Your task to perform on an android device: find snoozed emails in the gmail app Image 0: 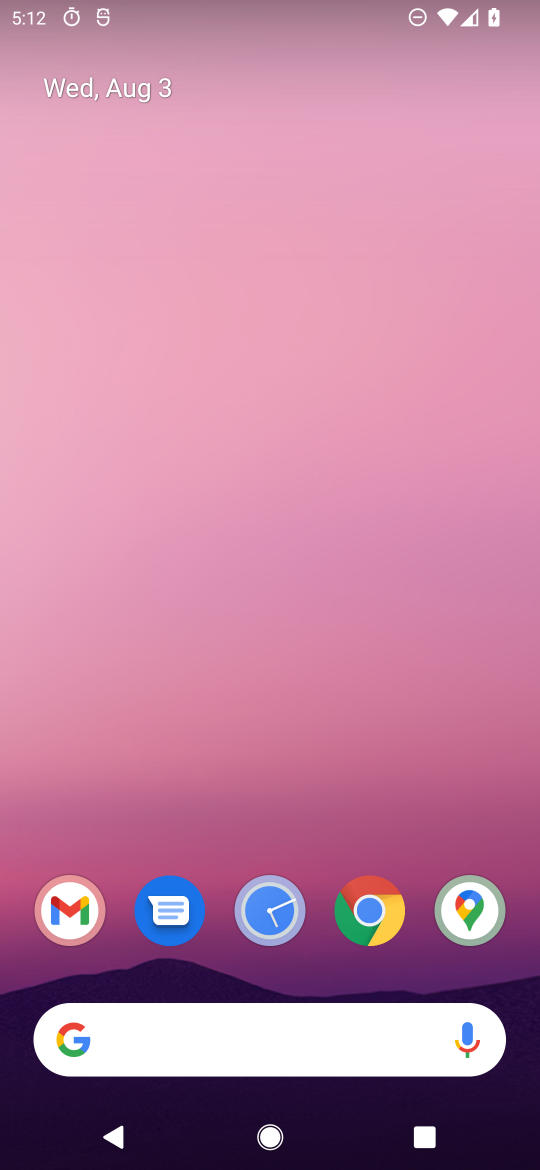
Step 0: click (95, 914)
Your task to perform on an android device: find snoozed emails in the gmail app Image 1: 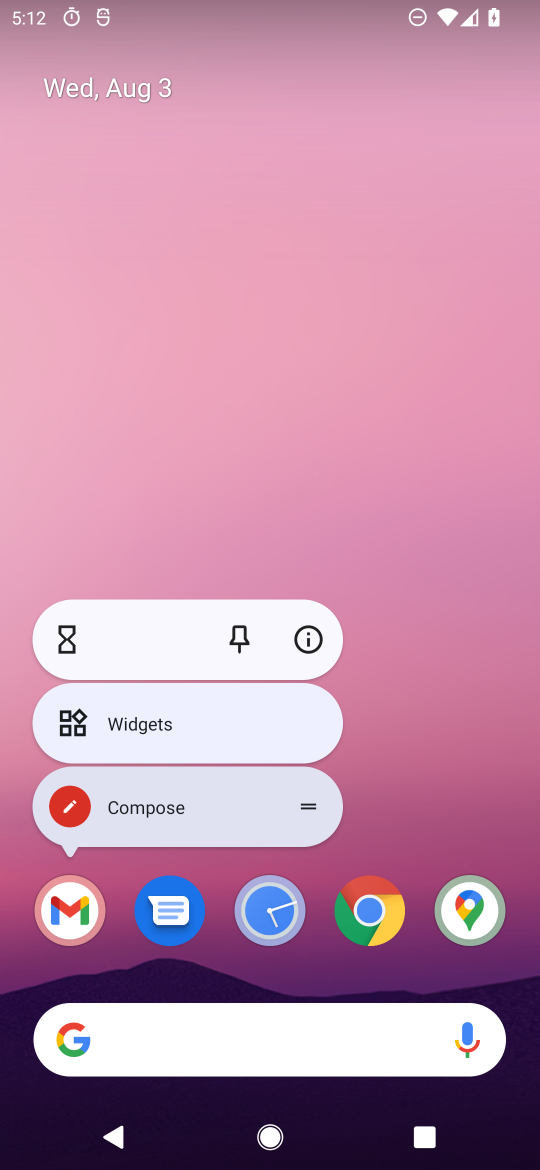
Step 1: click (56, 915)
Your task to perform on an android device: find snoozed emails in the gmail app Image 2: 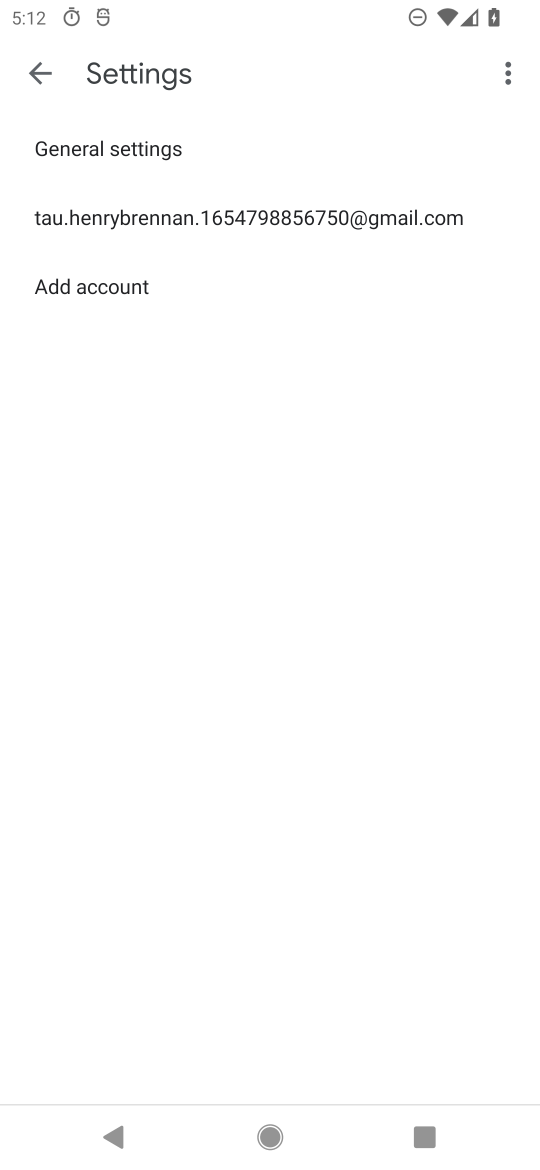
Step 2: click (63, 80)
Your task to perform on an android device: find snoozed emails in the gmail app Image 3: 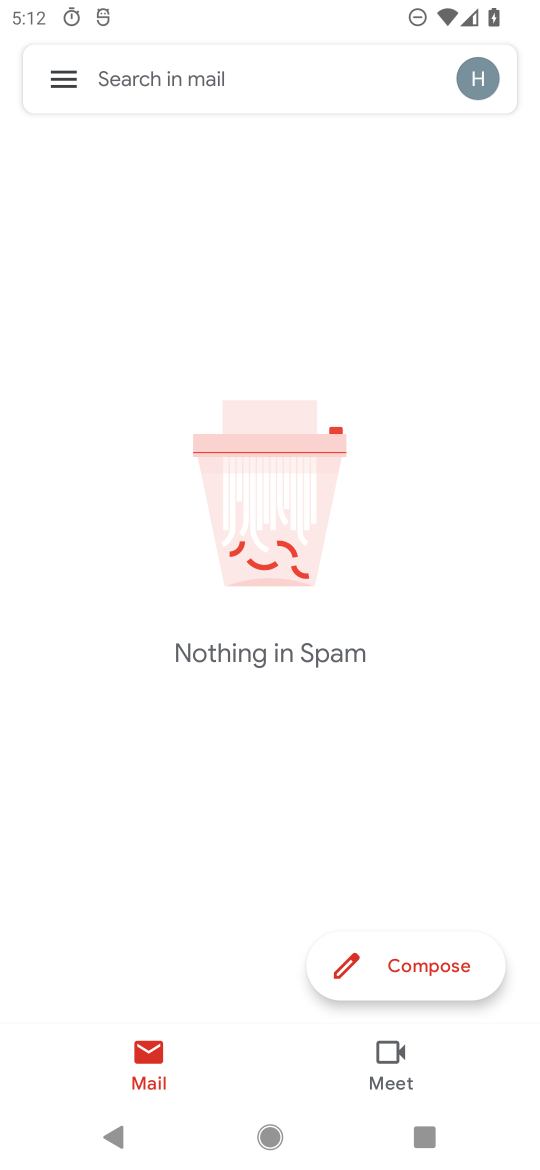
Step 3: click (68, 77)
Your task to perform on an android device: find snoozed emails in the gmail app Image 4: 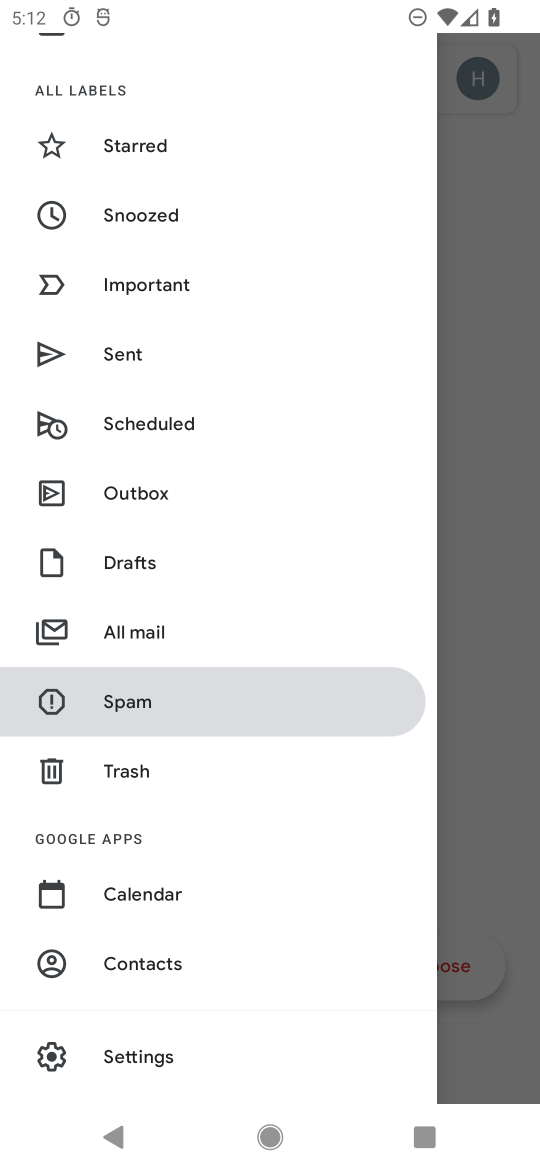
Step 4: click (124, 220)
Your task to perform on an android device: find snoozed emails in the gmail app Image 5: 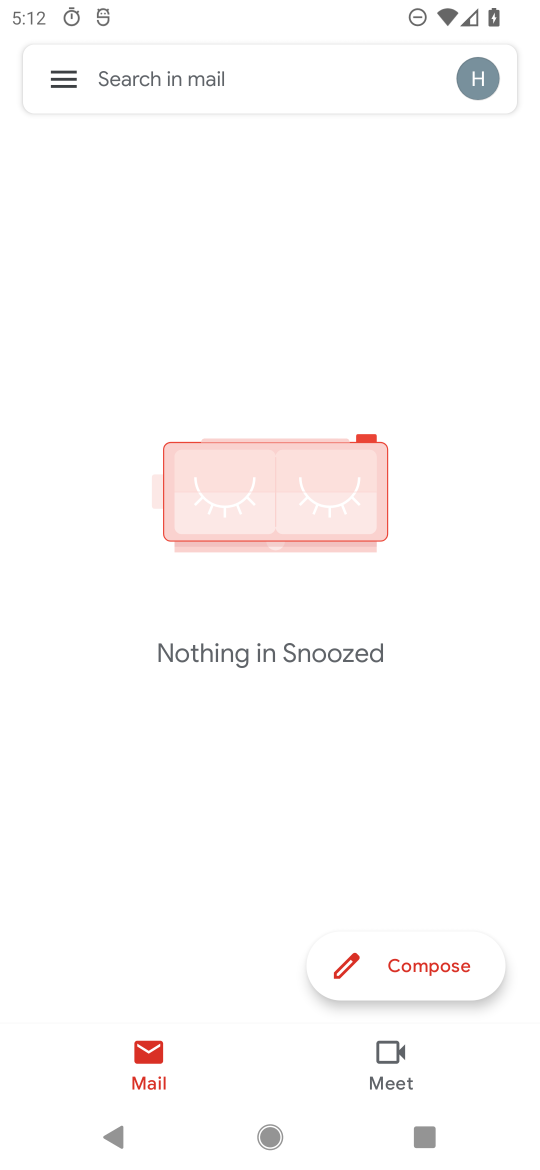
Step 5: task complete